Your task to perform on an android device: see tabs open on other devices in the chrome app Image 0: 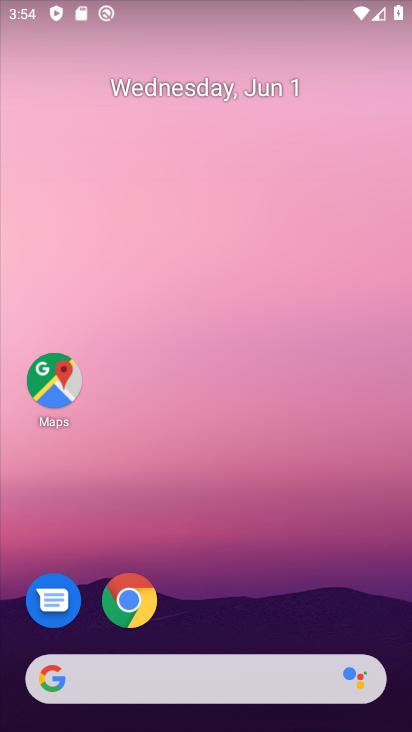
Step 0: click (130, 598)
Your task to perform on an android device: see tabs open on other devices in the chrome app Image 1: 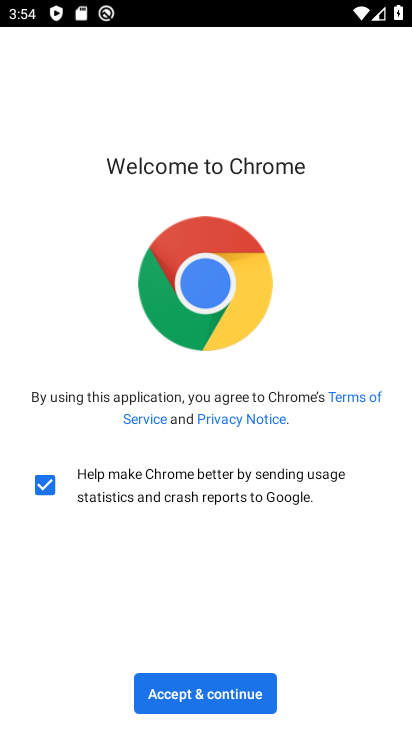
Step 1: click (224, 691)
Your task to perform on an android device: see tabs open on other devices in the chrome app Image 2: 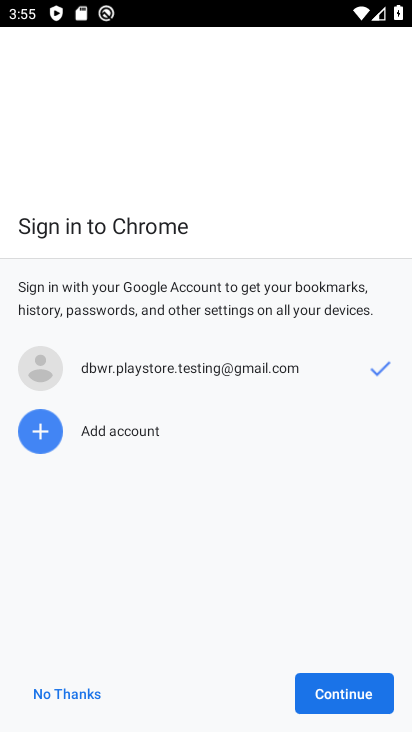
Step 2: click (350, 690)
Your task to perform on an android device: see tabs open on other devices in the chrome app Image 3: 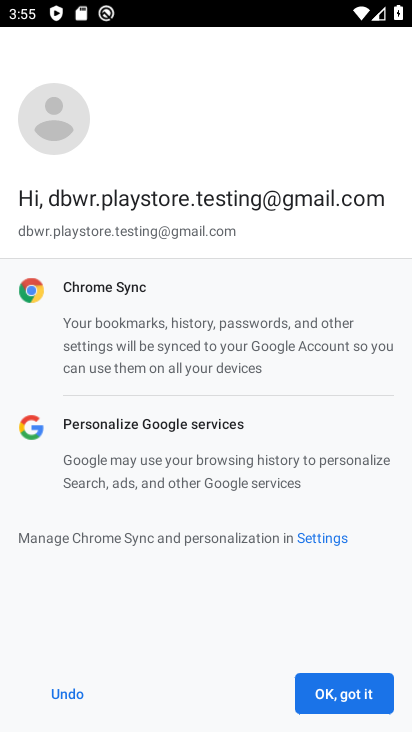
Step 3: click (350, 690)
Your task to perform on an android device: see tabs open on other devices in the chrome app Image 4: 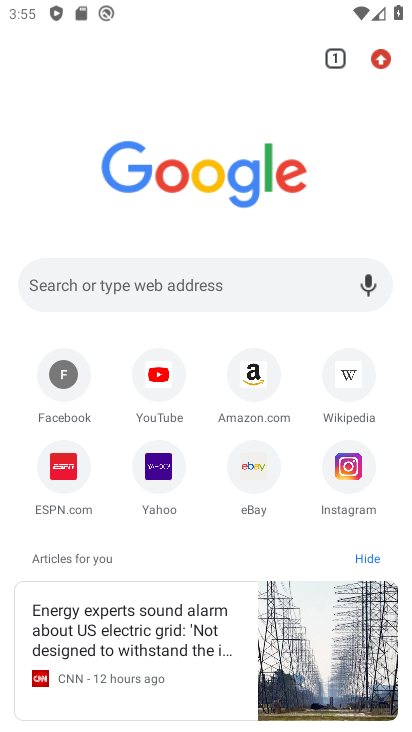
Step 4: click (378, 59)
Your task to perform on an android device: see tabs open on other devices in the chrome app Image 5: 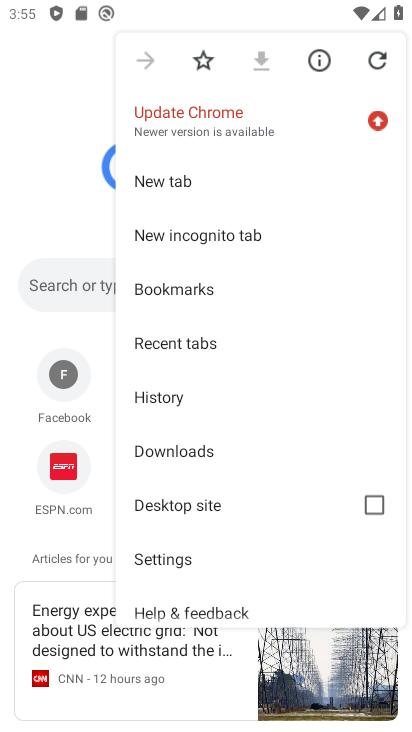
Step 5: click (160, 336)
Your task to perform on an android device: see tabs open on other devices in the chrome app Image 6: 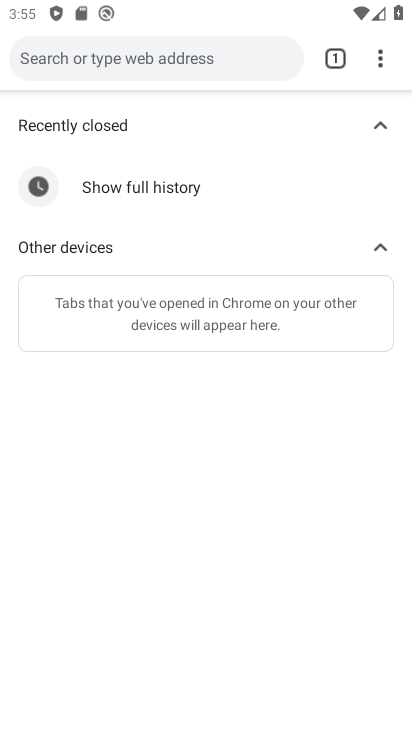
Step 6: task complete